Your task to perform on an android device: open a new tab in the chrome app Image 0: 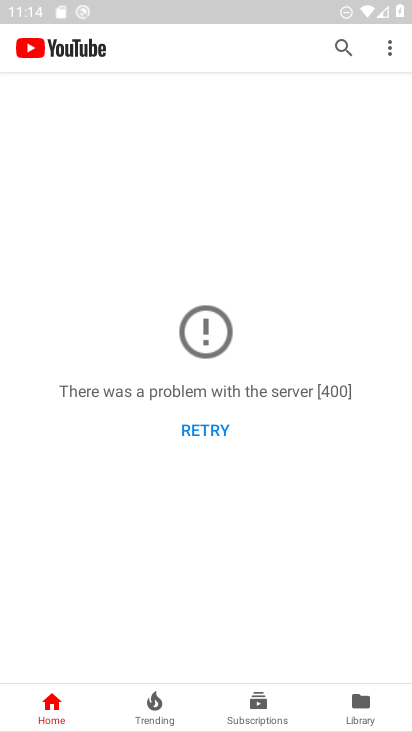
Step 0: press back button
Your task to perform on an android device: open a new tab in the chrome app Image 1: 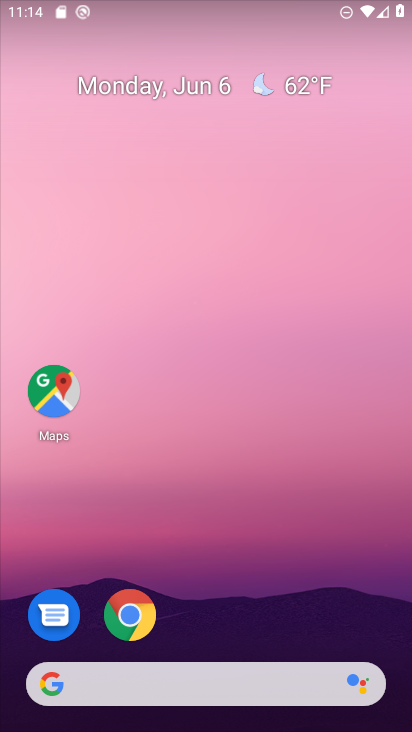
Step 1: click (132, 631)
Your task to perform on an android device: open a new tab in the chrome app Image 2: 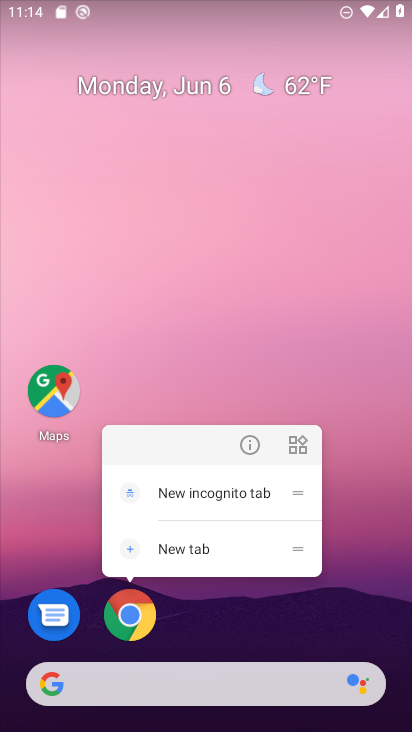
Step 2: click (132, 631)
Your task to perform on an android device: open a new tab in the chrome app Image 3: 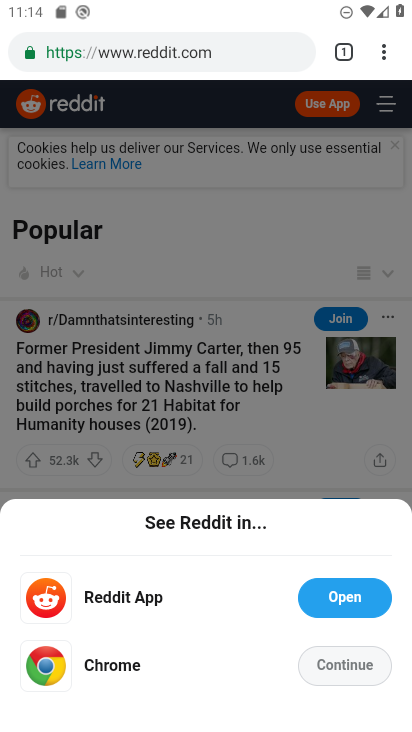
Step 3: task complete